Your task to perform on an android device: install app "Microsoft Authenticator" Image 0: 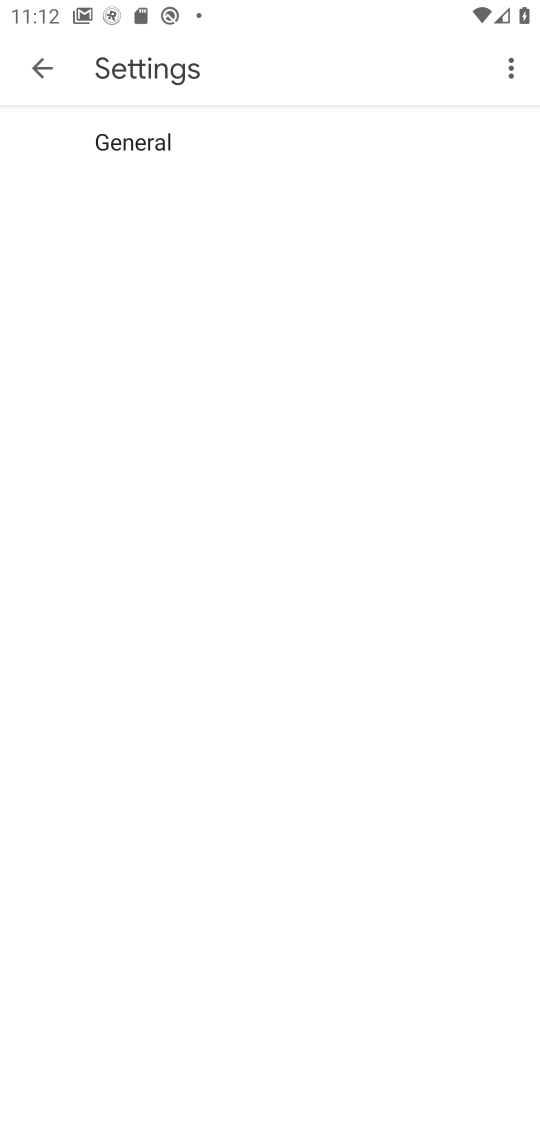
Step 0: press home button
Your task to perform on an android device: install app "Microsoft Authenticator" Image 1: 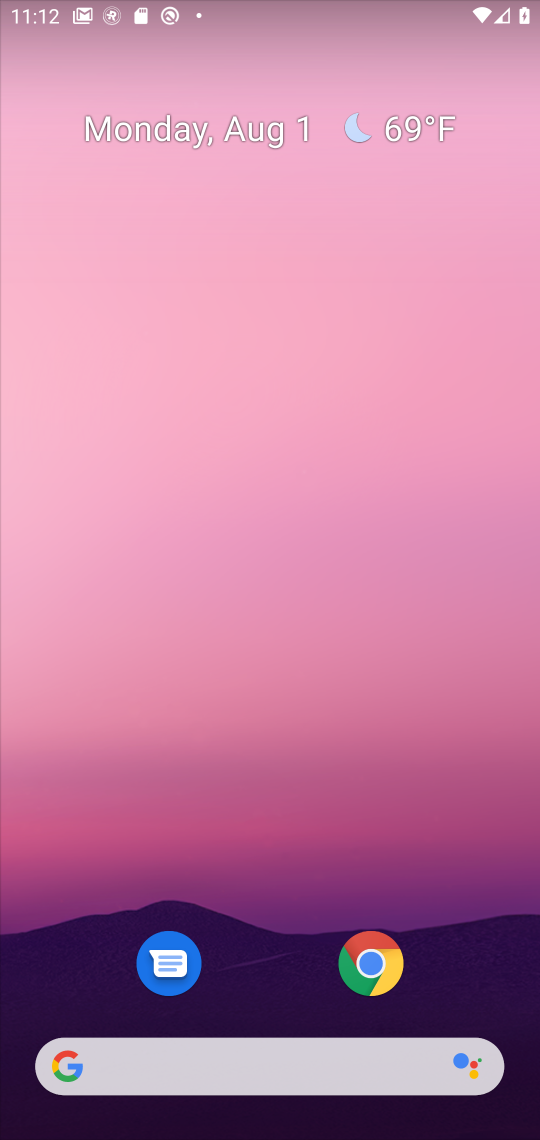
Step 1: drag from (234, 986) to (108, 8)
Your task to perform on an android device: install app "Microsoft Authenticator" Image 2: 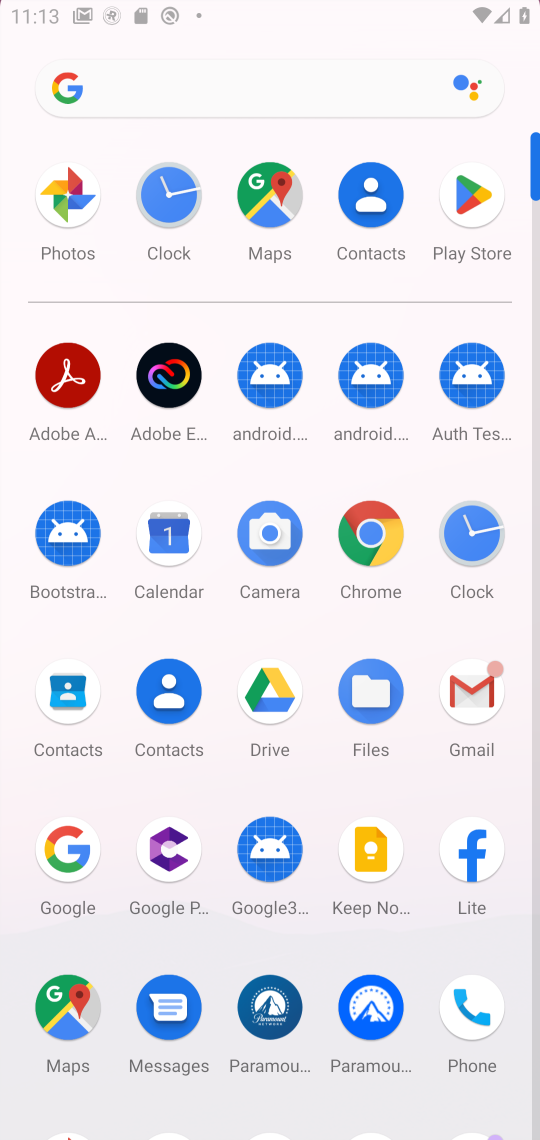
Step 2: click (466, 292)
Your task to perform on an android device: install app "Microsoft Authenticator" Image 3: 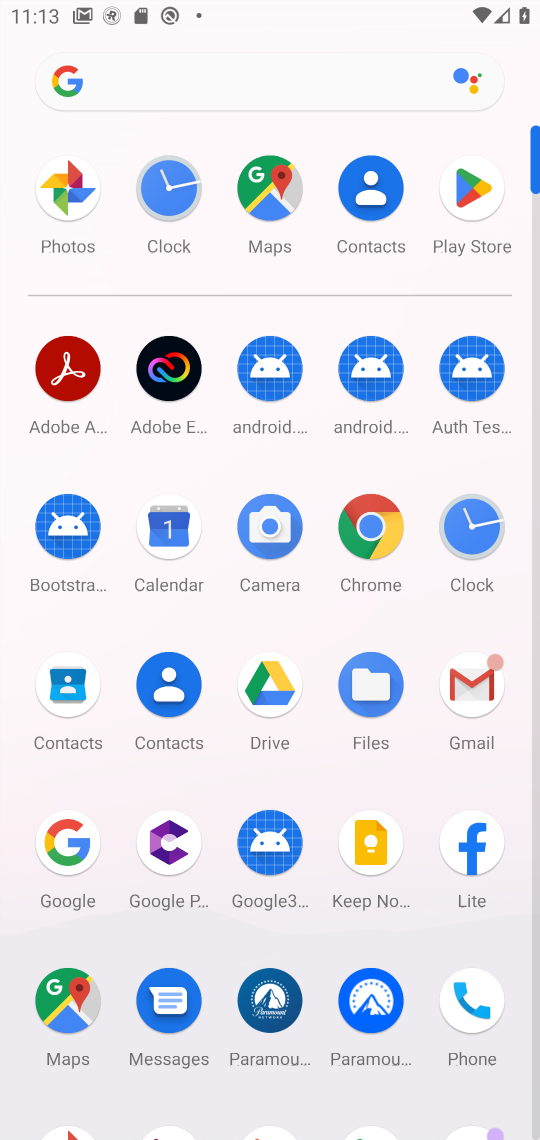
Step 3: click (483, 232)
Your task to perform on an android device: install app "Microsoft Authenticator" Image 4: 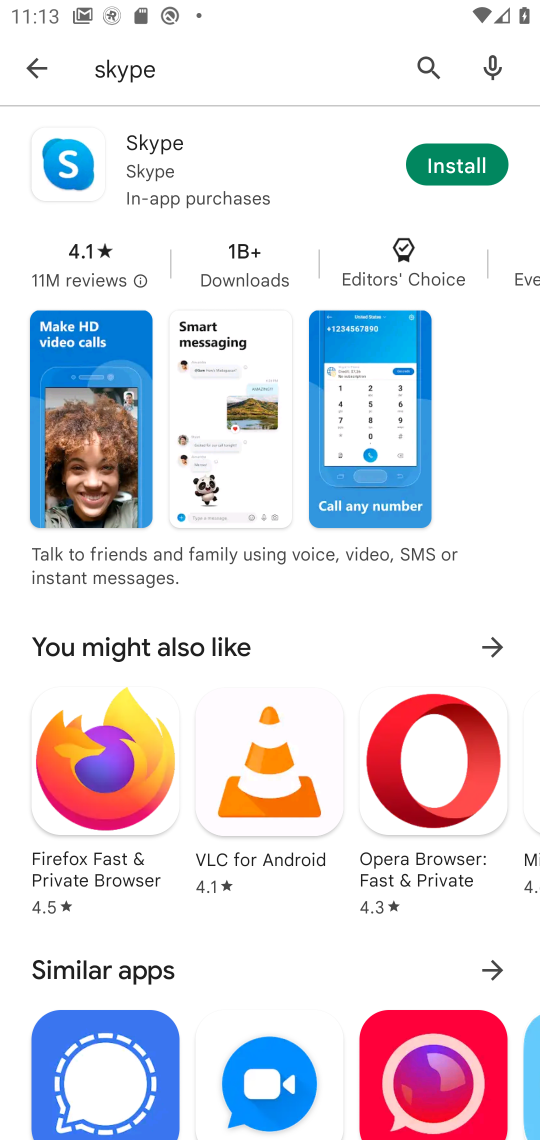
Step 4: click (179, 62)
Your task to perform on an android device: install app "Microsoft Authenticator" Image 5: 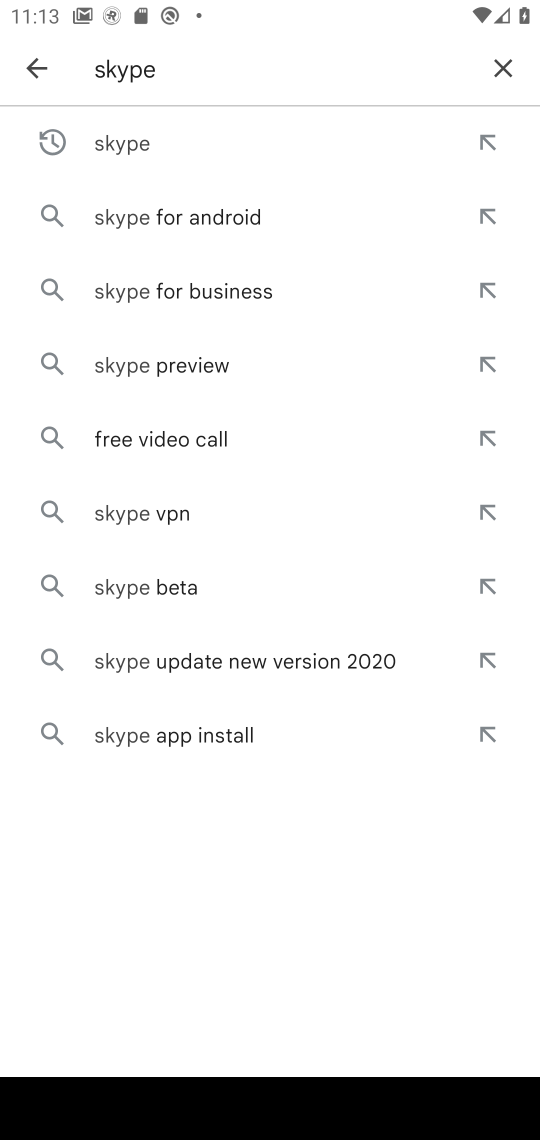
Step 5: click (501, 70)
Your task to perform on an android device: install app "Microsoft Authenticator" Image 6: 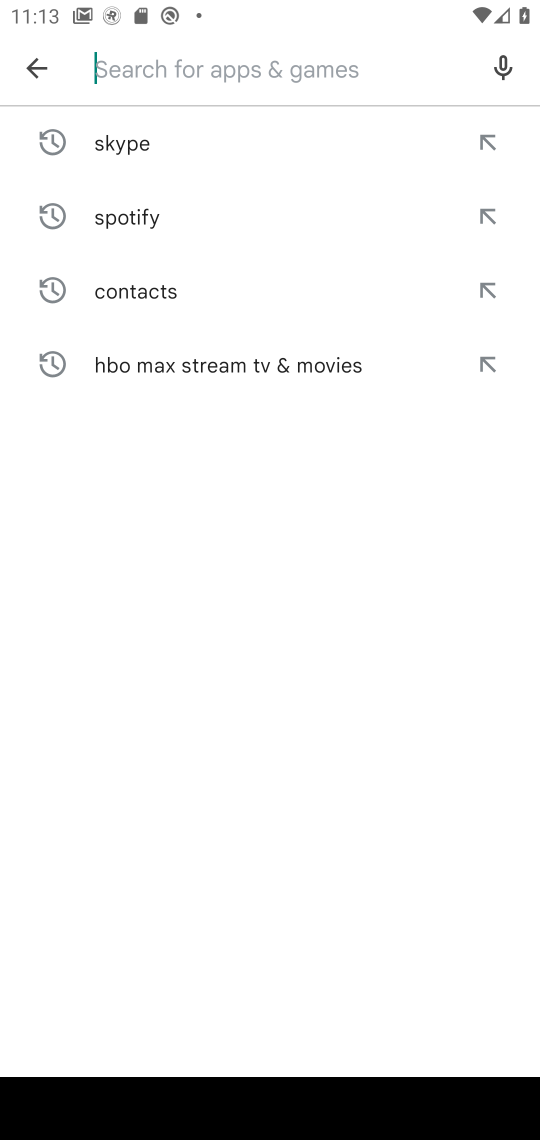
Step 6: type "microsoft Authemticator"
Your task to perform on an android device: install app "Microsoft Authenticator" Image 7: 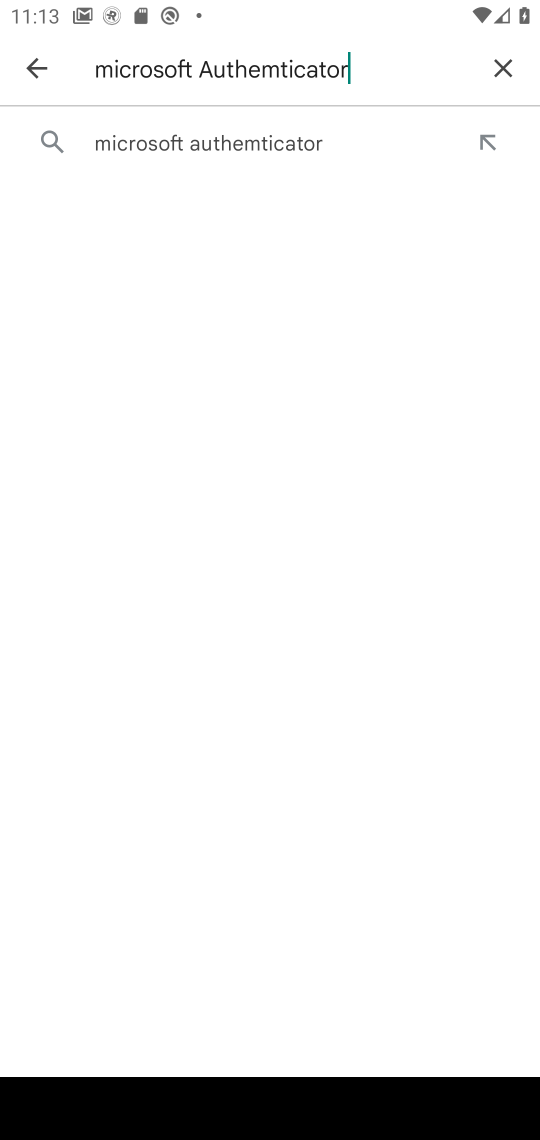
Step 7: click (210, 151)
Your task to perform on an android device: install app "Microsoft Authenticator" Image 8: 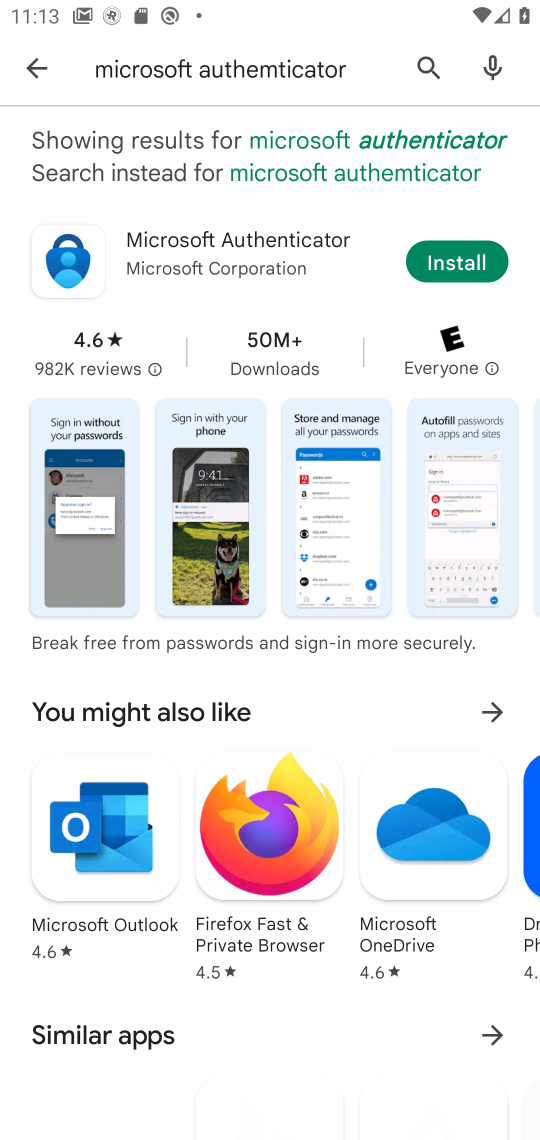
Step 8: click (447, 260)
Your task to perform on an android device: install app "Microsoft Authenticator" Image 9: 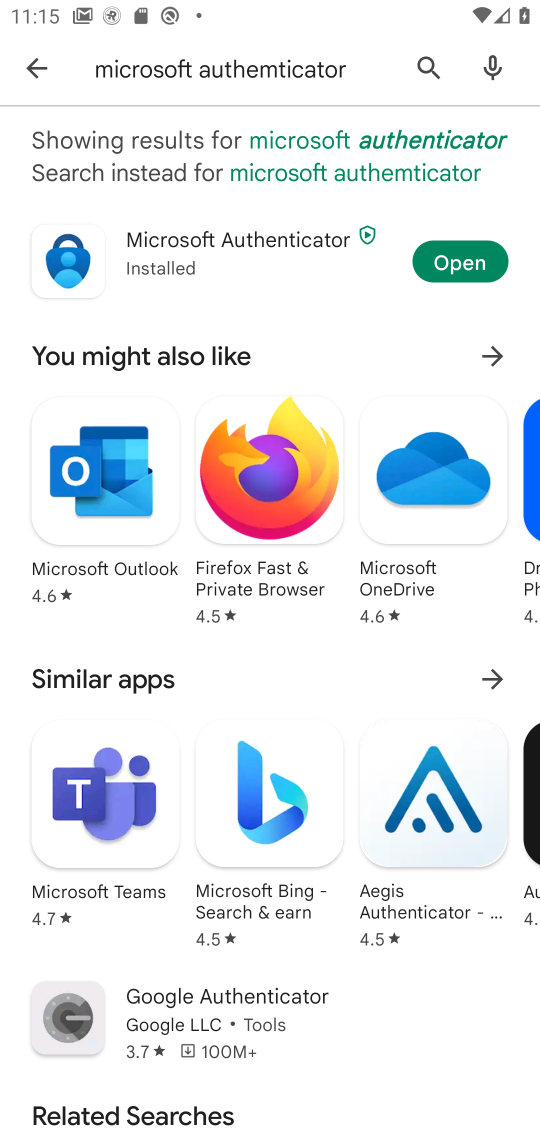
Step 9: task complete